Your task to perform on an android device: show emergency info Image 0: 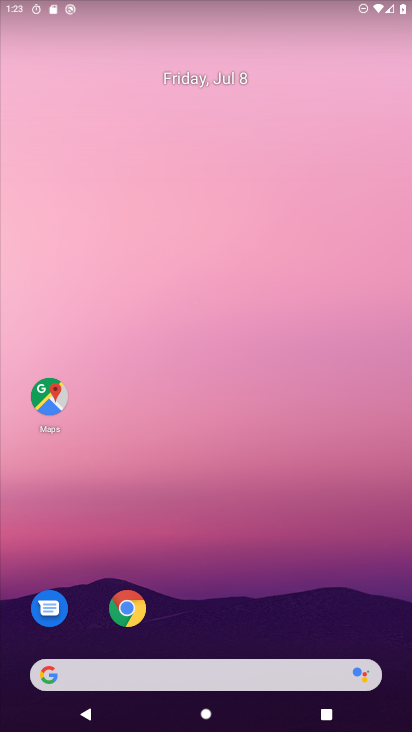
Step 0: drag from (236, 694) to (236, 93)
Your task to perform on an android device: show emergency info Image 1: 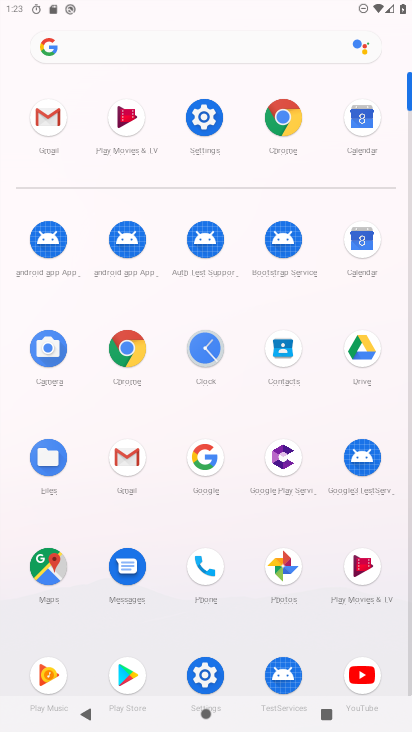
Step 1: click (212, 118)
Your task to perform on an android device: show emergency info Image 2: 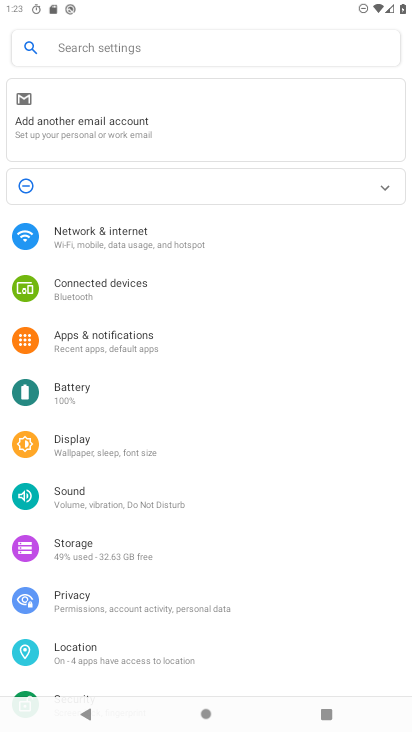
Step 2: drag from (150, 660) to (152, 463)
Your task to perform on an android device: show emergency info Image 3: 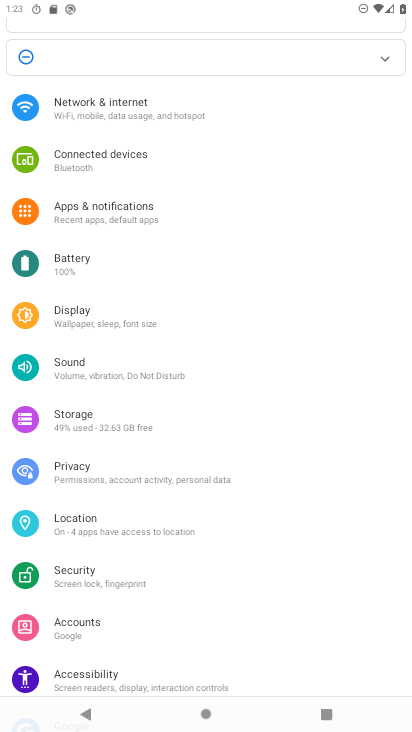
Step 3: drag from (156, 328) to (156, 271)
Your task to perform on an android device: show emergency info Image 4: 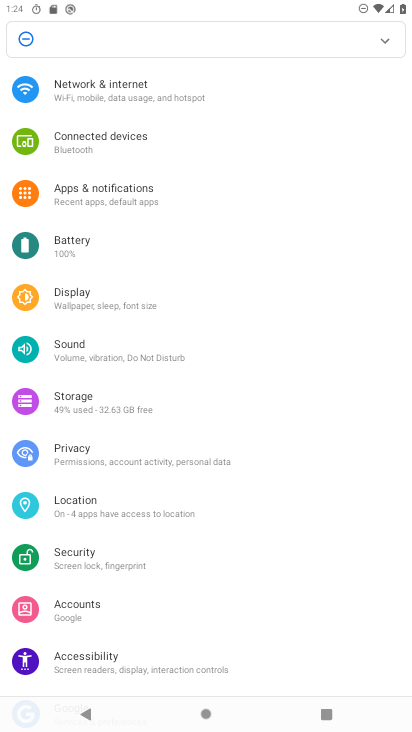
Step 4: drag from (138, 670) to (129, 598)
Your task to perform on an android device: show emergency info Image 5: 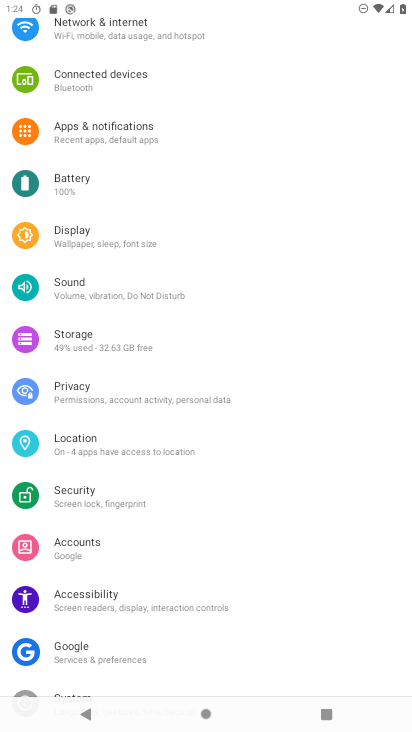
Step 5: drag from (129, 267) to (128, 215)
Your task to perform on an android device: show emergency info Image 6: 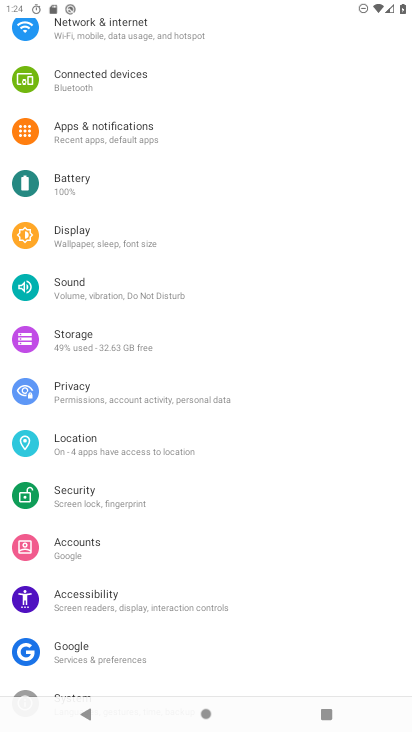
Step 6: drag from (123, 642) to (123, 383)
Your task to perform on an android device: show emergency info Image 7: 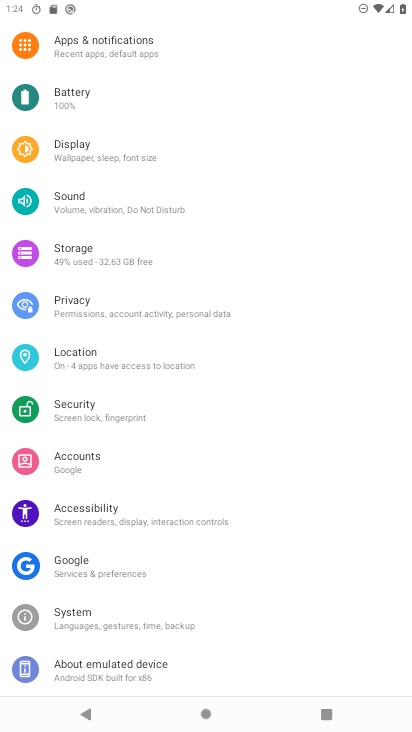
Step 7: click (127, 658)
Your task to perform on an android device: show emergency info Image 8: 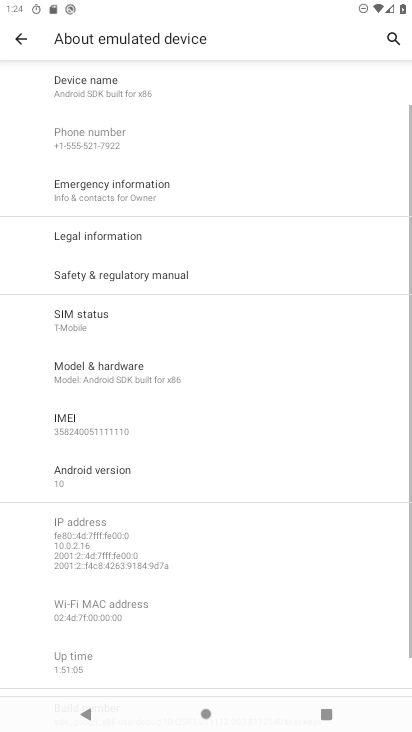
Step 8: click (125, 187)
Your task to perform on an android device: show emergency info Image 9: 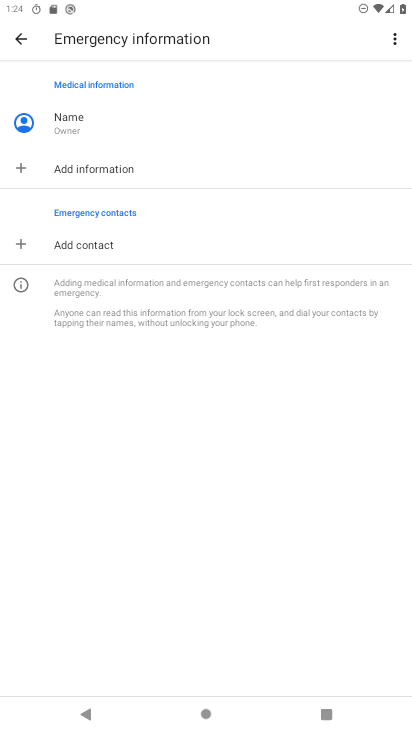
Step 9: task complete